Your task to perform on an android device: Go to notification settings Image 0: 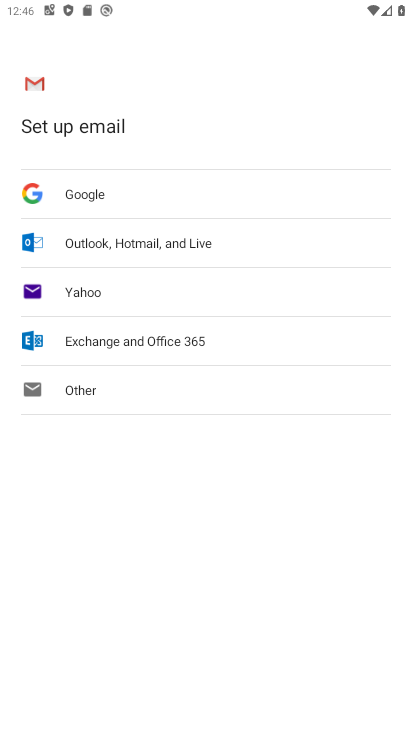
Step 0: press home button
Your task to perform on an android device: Go to notification settings Image 1: 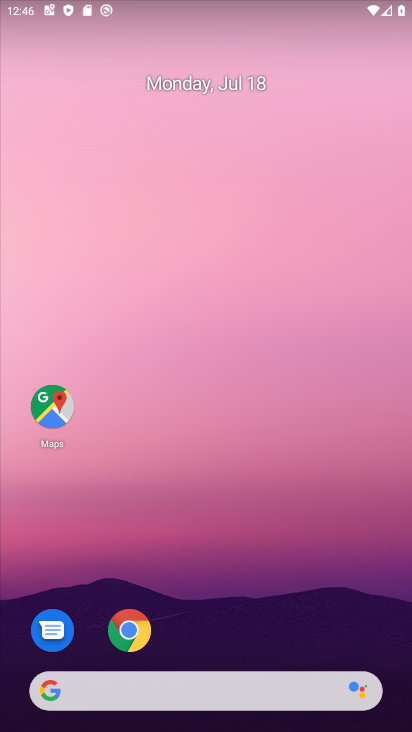
Step 1: drag from (359, 624) to (314, 195)
Your task to perform on an android device: Go to notification settings Image 2: 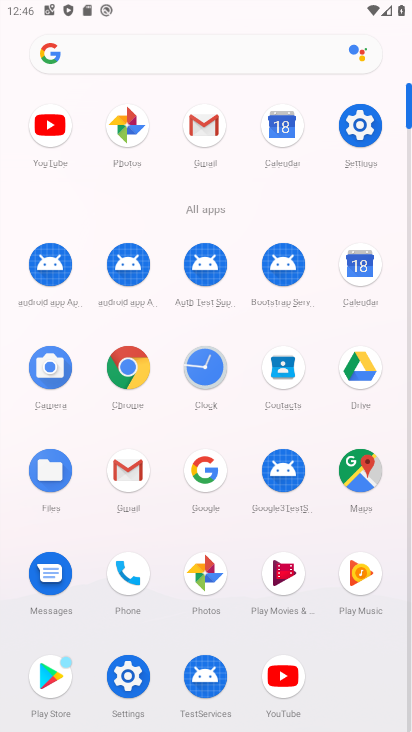
Step 2: click (366, 133)
Your task to perform on an android device: Go to notification settings Image 3: 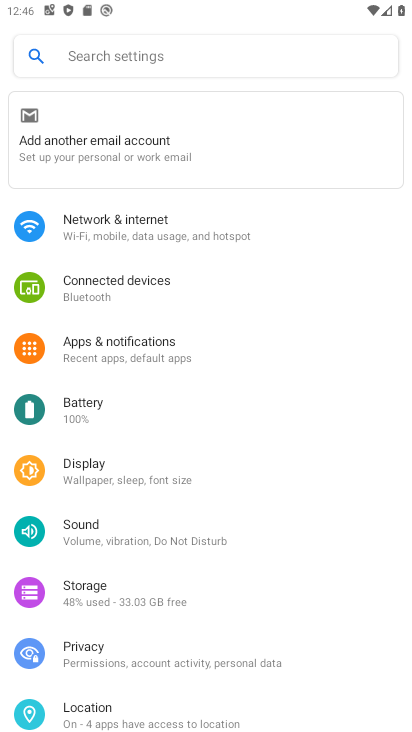
Step 3: click (269, 336)
Your task to perform on an android device: Go to notification settings Image 4: 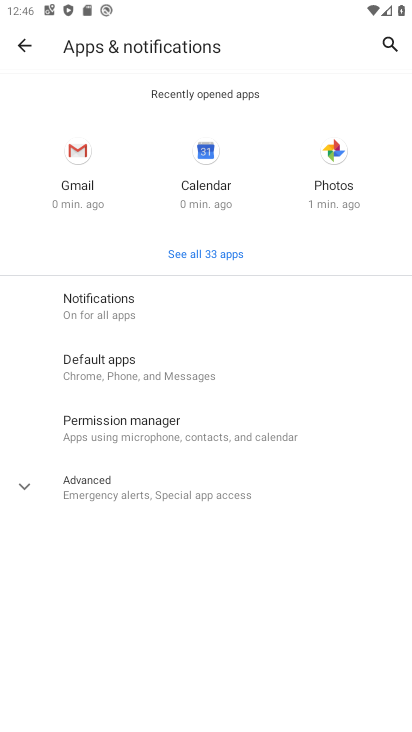
Step 4: click (182, 314)
Your task to perform on an android device: Go to notification settings Image 5: 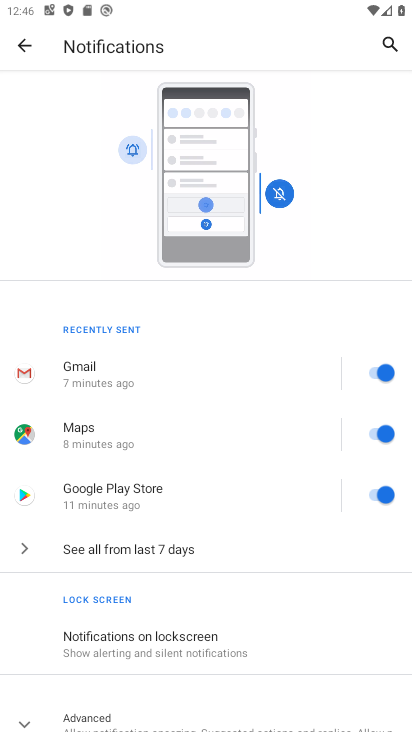
Step 5: task complete